Your task to perform on an android device: Open calendar and show me the fourth week of next month Image 0: 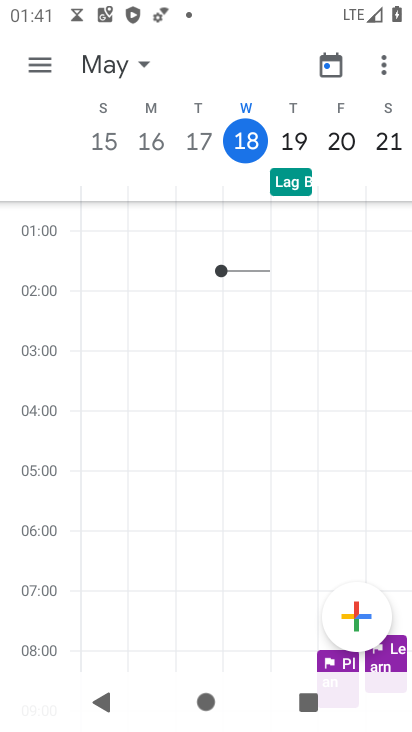
Step 0: press home button
Your task to perform on an android device: Open calendar and show me the fourth week of next month Image 1: 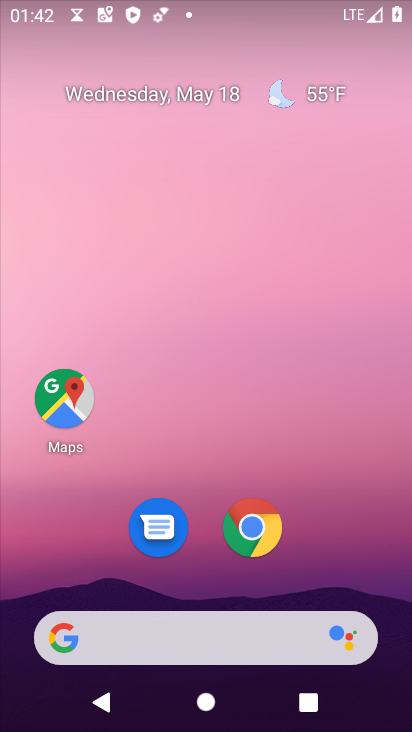
Step 1: click (264, 521)
Your task to perform on an android device: Open calendar and show me the fourth week of next month Image 2: 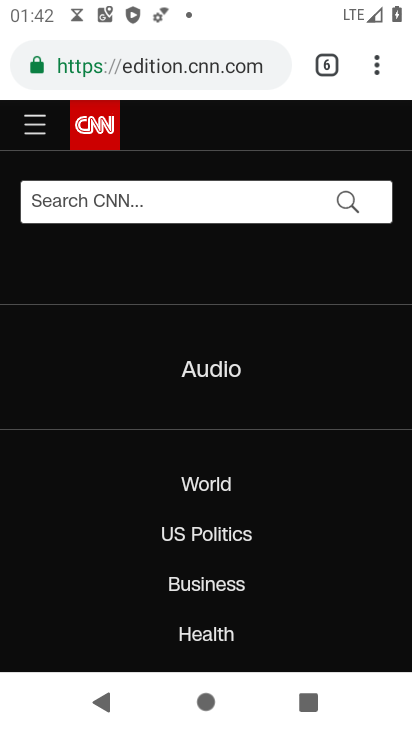
Step 2: click (374, 61)
Your task to perform on an android device: Open calendar and show me the fourth week of next month Image 3: 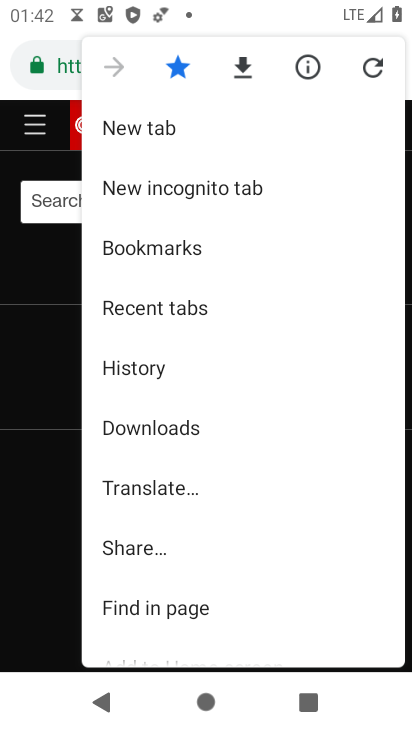
Step 3: drag from (266, 447) to (244, 230)
Your task to perform on an android device: Open calendar and show me the fourth week of next month Image 4: 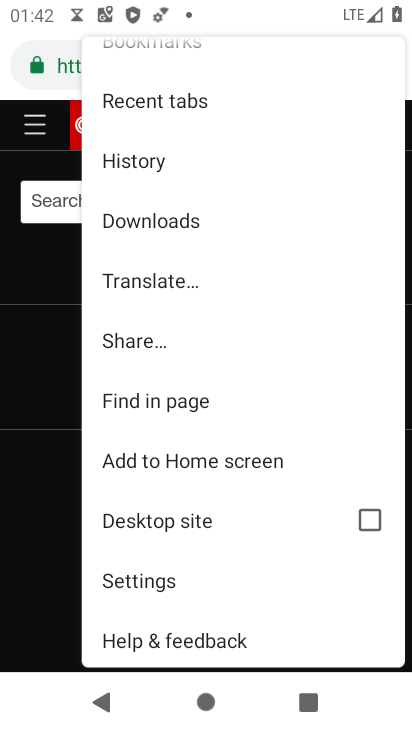
Step 4: press home button
Your task to perform on an android device: Open calendar and show me the fourth week of next month Image 5: 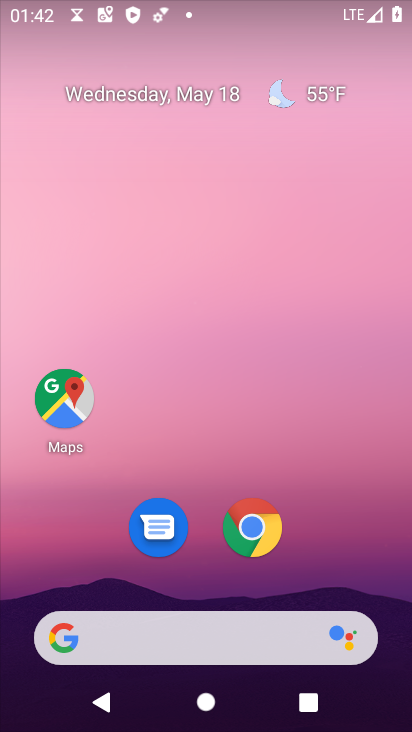
Step 5: click (165, 93)
Your task to perform on an android device: Open calendar and show me the fourth week of next month Image 6: 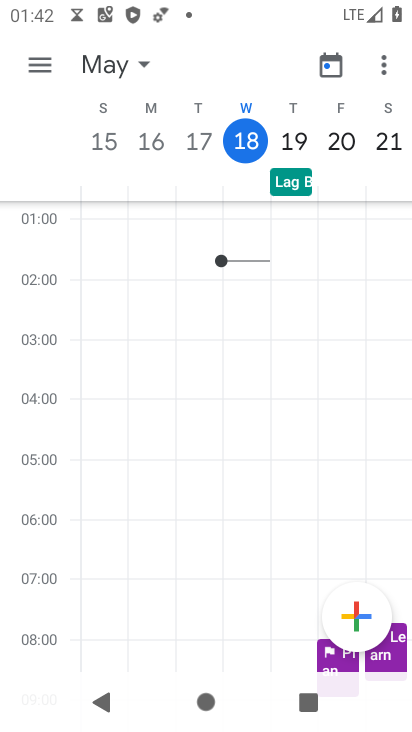
Step 6: click (135, 68)
Your task to perform on an android device: Open calendar and show me the fourth week of next month Image 7: 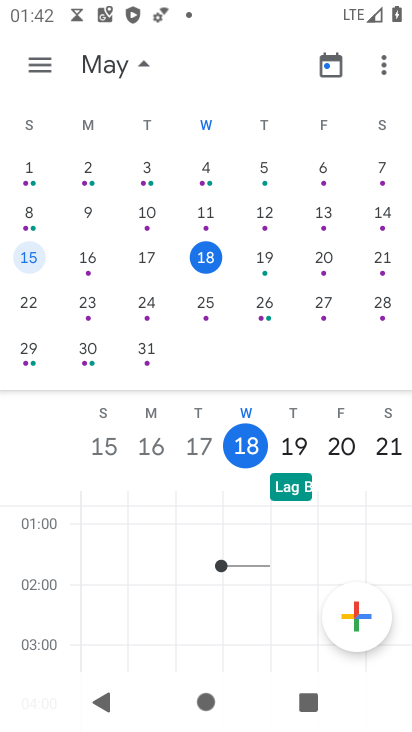
Step 7: drag from (340, 246) to (26, 234)
Your task to perform on an android device: Open calendar and show me the fourth week of next month Image 8: 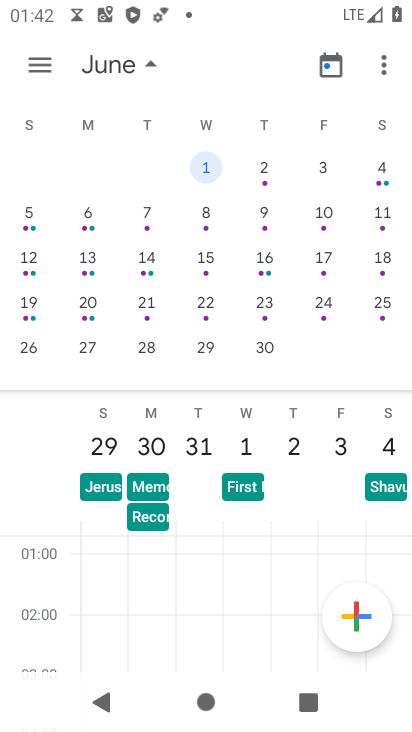
Step 8: click (37, 312)
Your task to perform on an android device: Open calendar and show me the fourth week of next month Image 9: 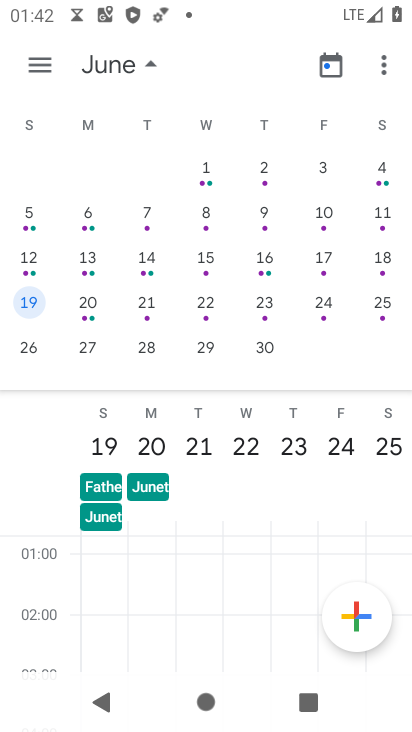
Step 9: task complete